Your task to perform on an android device: turn on the 12-hour format for clock Image 0: 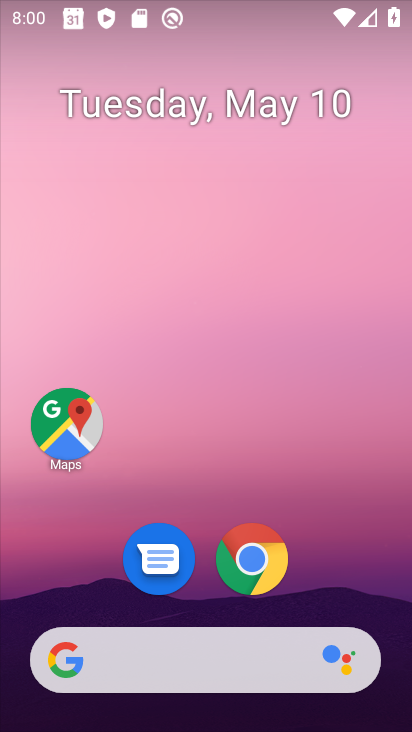
Step 0: drag from (334, 519) to (243, 53)
Your task to perform on an android device: turn on the 12-hour format for clock Image 1: 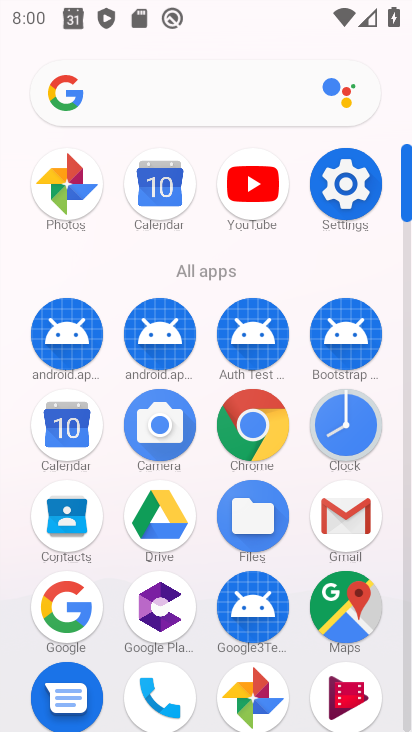
Step 1: click (342, 178)
Your task to perform on an android device: turn on the 12-hour format for clock Image 2: 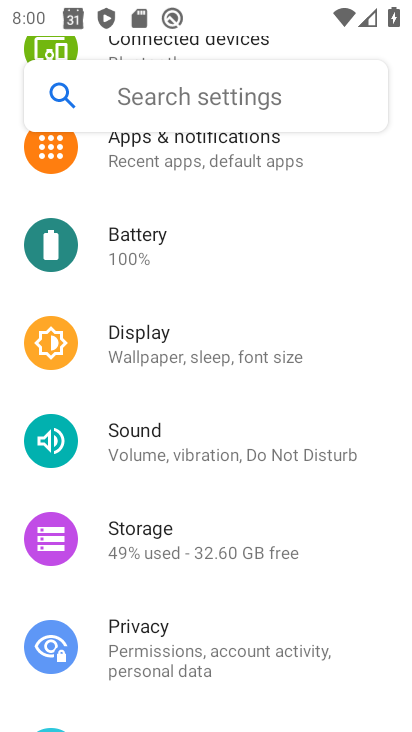
Step 2: click (342, 178)
Your task to perform on an android device: turn on the 12-hour format for clock Image 3: 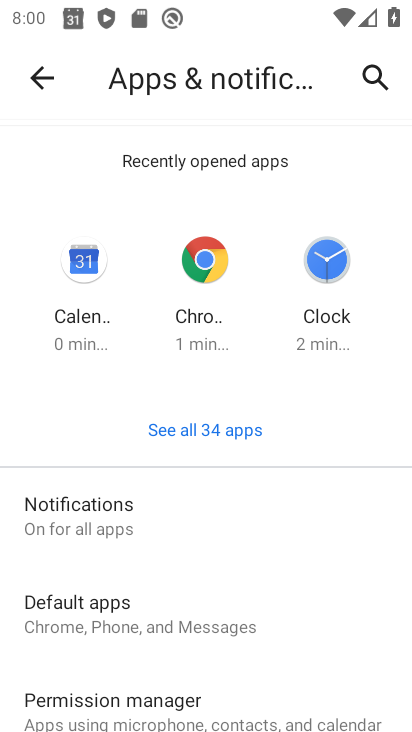
Step 3: click (39, 93)
Your task to perform on an android device: turn on the 12-hour format for clock Image 4: 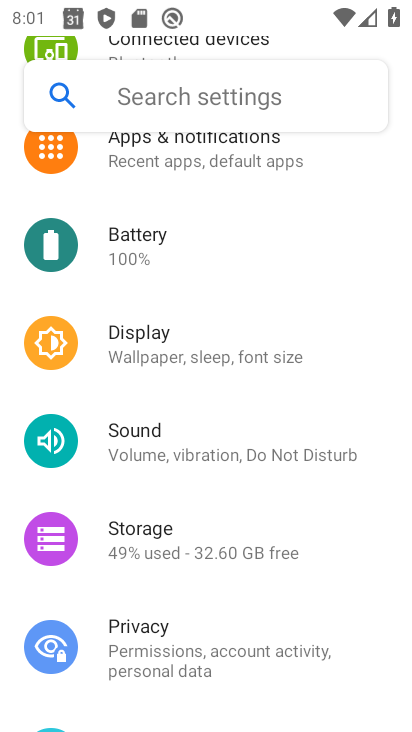
Step 4: drag from (218, 575) to (196, 190)
Your task to perform on an android device: turn on the 12-hour format for clock Image 5: 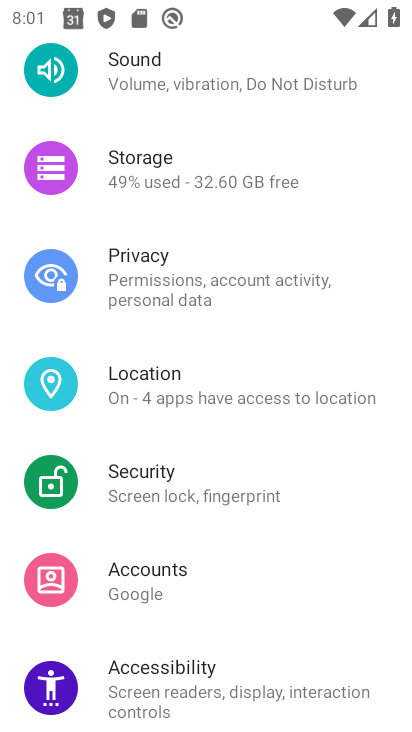
Step 5: drag from (244, 646) to (206, 185)
Your task to perform on an android device: turn on the 12-hour format for clock Image 6: 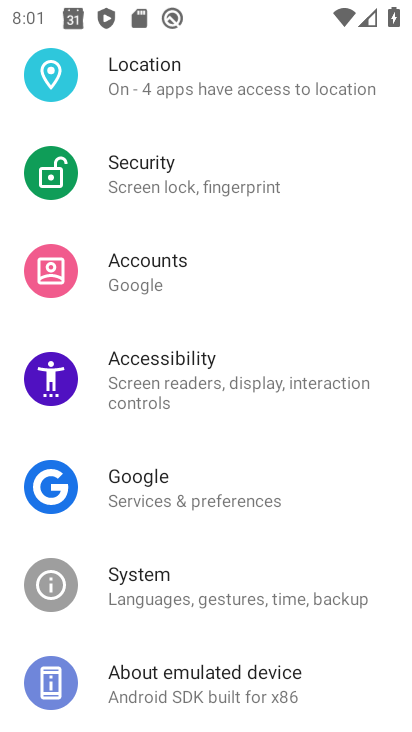
Step 6: click (184, 588)
Your task to perform on an android device: turn on the 12-hour format for clock Image 7: 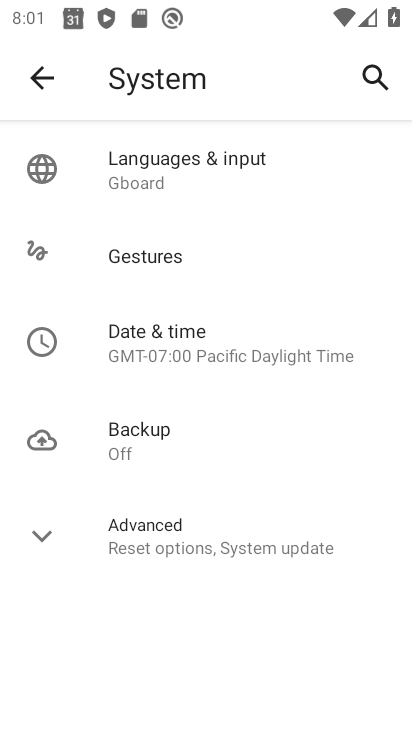
Step 7: click (220, 342)
Your task to perform on an android device: turn on the 12-hour format for clock Image 8: 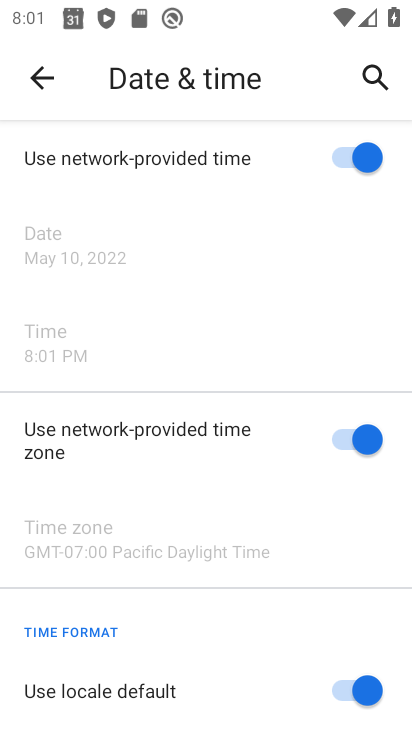
Step 8: task complete